Your task to perform on an android device: empty trash in google photos Image 0: 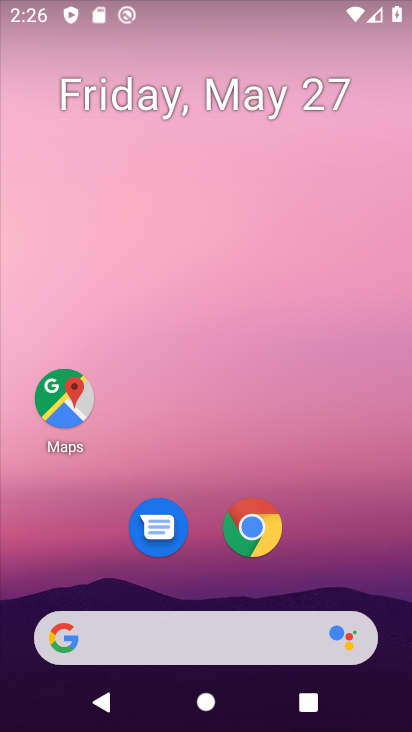
Step 0: drag from (324, 554) to (287, 4)
Your task to perform on an android device: empty trash in google photos Image 1: 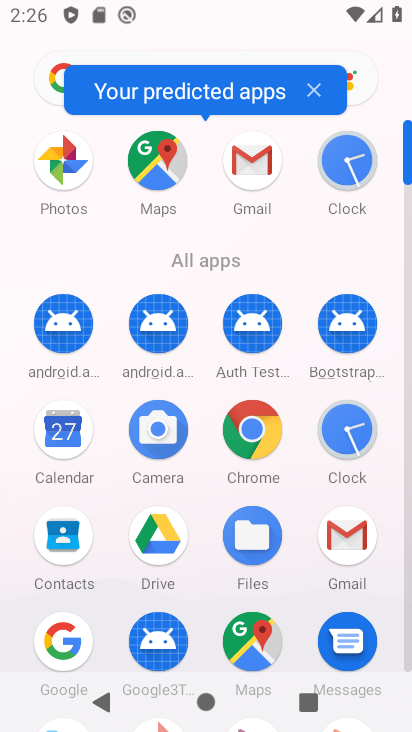
Step 1: drag from (297, 579) to (327, 261)
Your task to perform on an android device: empty trash in google photos Image 2: 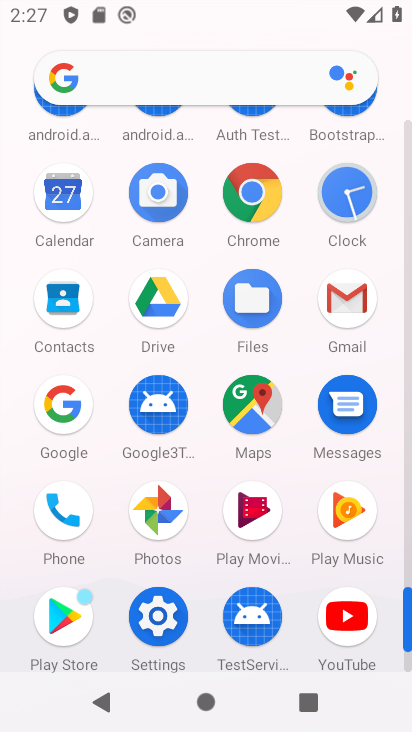
Step 2: click (146, 523)
Your task to perform on an android device: empty trash in google photos Image 3: 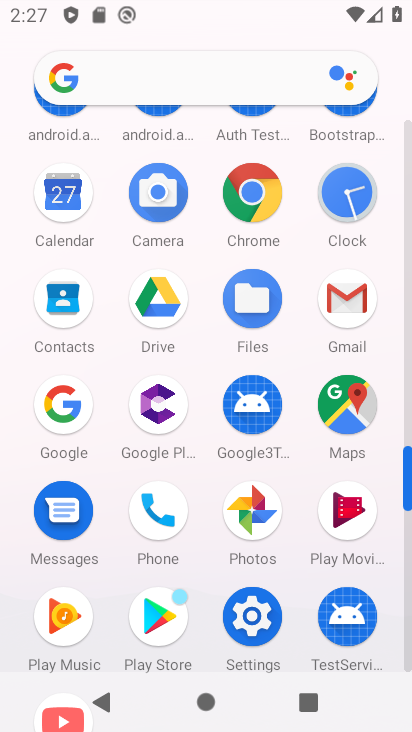
Step 3: click (261, 536)
Your task to perform on an android device: empty trash in google photos Image 4: 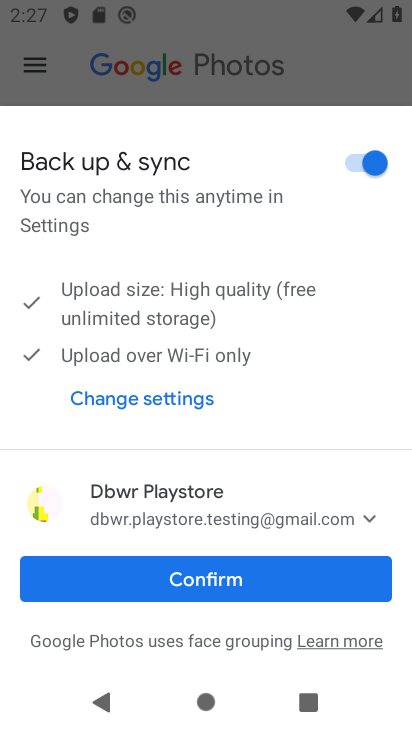
Step 4: click (220, 576)
Your task to perform on an android device: empty trash in google photos Image 5: 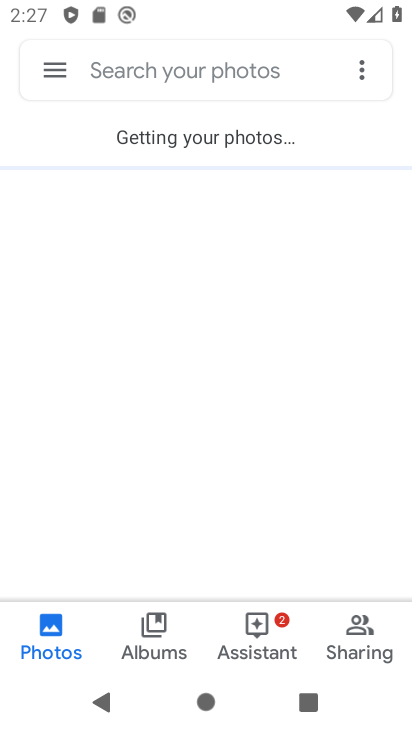
Step 5: click (53, 70)
Your task to perform on an android device: empty trash in google photos Image 6: 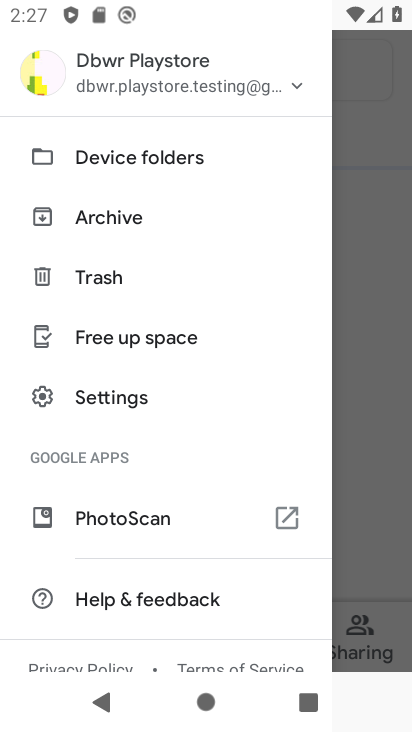
Step 6: click (104, 274)
Your task to perform on an android device: empty trash in google photos Image 7: 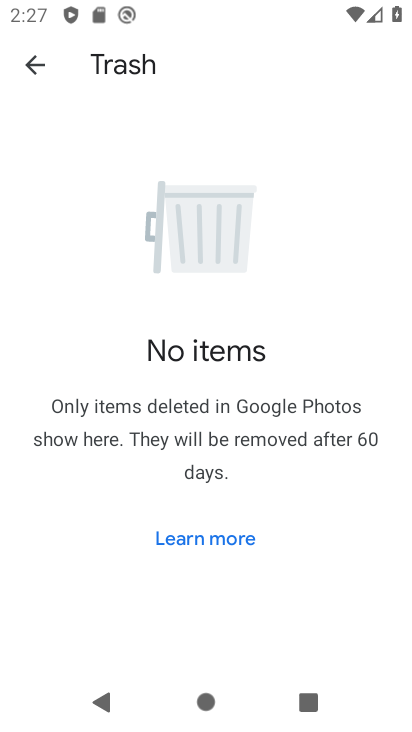
Step 7: task complete